Your task to perform on an android device: check the backup settings in the google photos Image 0: 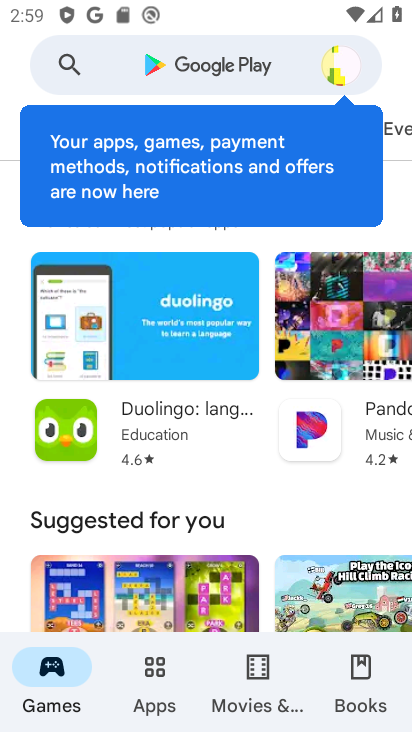
Step 0: press home button
Your task to perform on an android device: check the backup settings in the google photos Image 1: 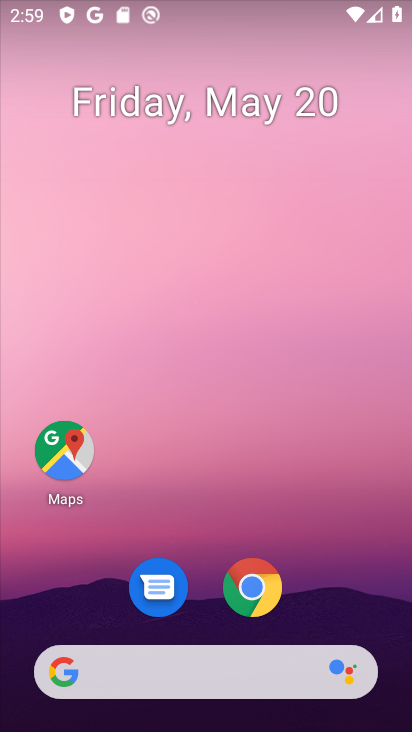
Step 1: drag from (200, 670) to (264, 243)
Your task to perform on an android device: check the backup settings in the google photos Image 2: 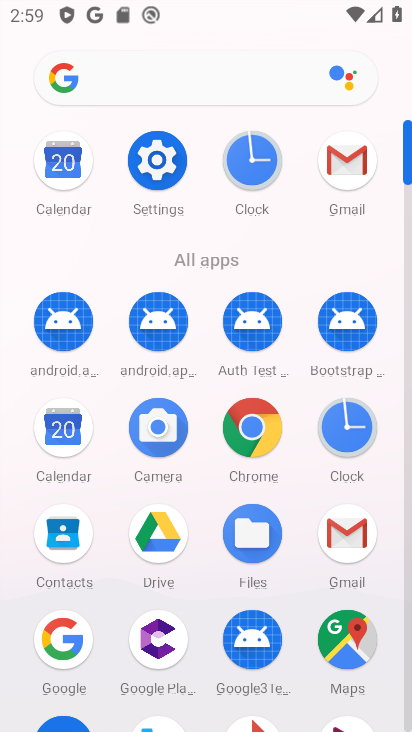
Step 2: drag from (217, 648) to (333, 155)
Your task to perform on an android device: check the backup settings in the google photos Image 3: 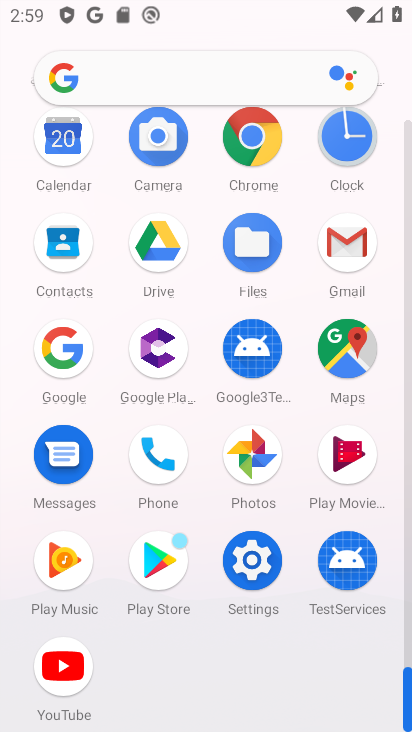
Step 3: click (248, 456)
Your task to perform on an android device: check the backup settings in the google photos Image 4: 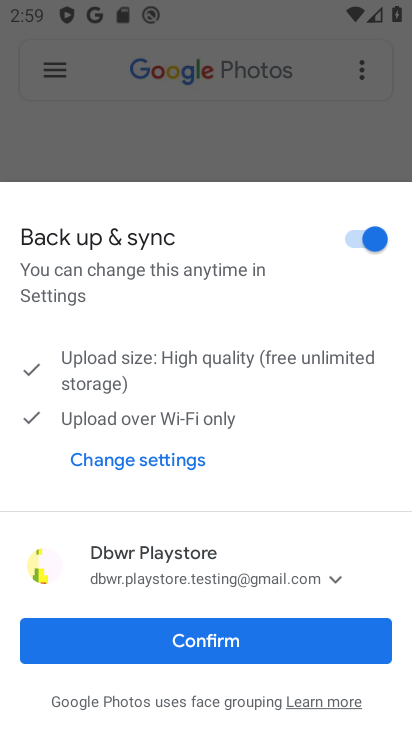
Step 4: click (193, 637)
Your task to perform on an android device: check the backup settings in the google photos Image 5: 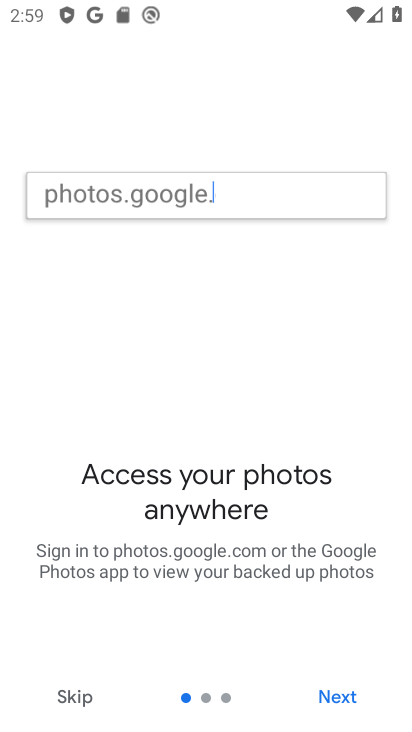
Step 5: click (335, 697)
Your task to perform on an android device: check the backup settings in the google photos Image 6: 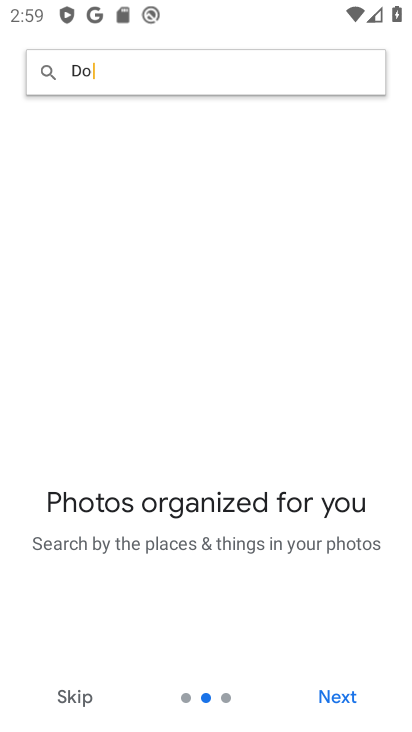
Step 6: click (335, 697)
Your task to perform on an android device: check the backup settings in the google photos Image 7: 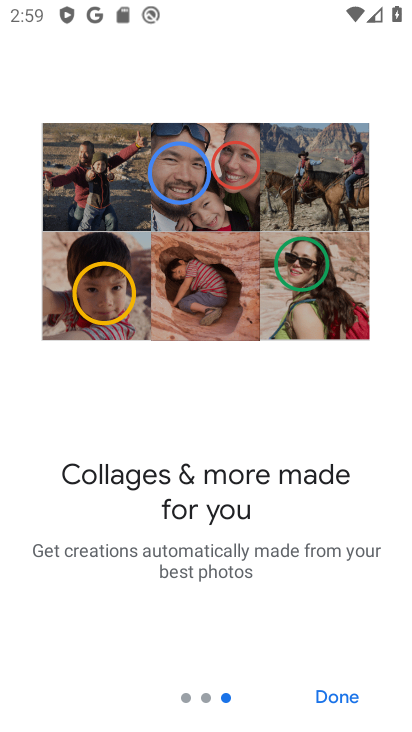
Step 7: click (334, 697)
Your task to perform on an android device: check the backup settings in the google photos Image 8: 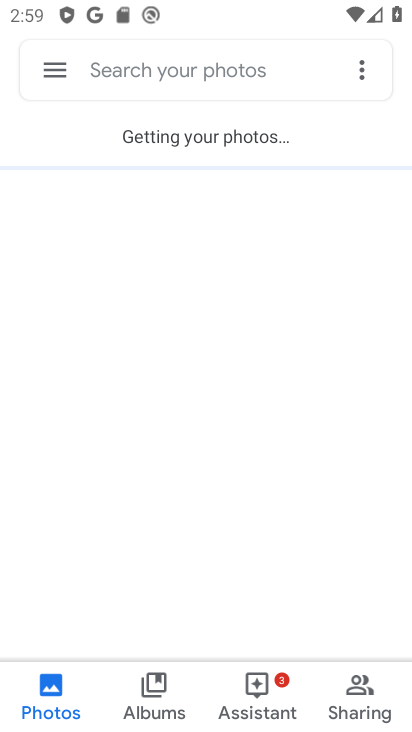
Step 8: click (53, 70)
Your task to perform on an android device: check the backup settings in the google photos Image 9: 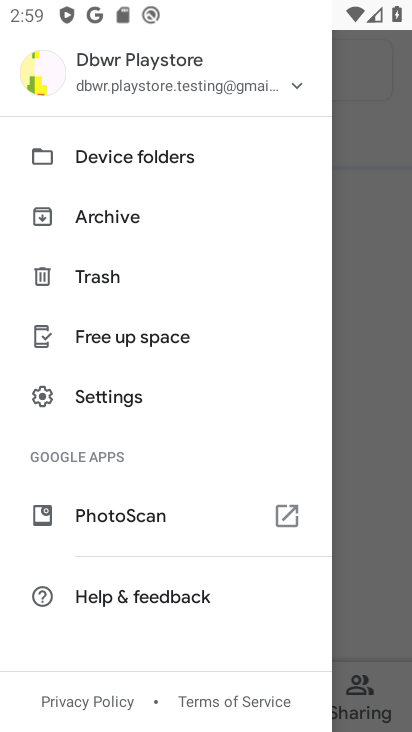
Step 9: click (133, 398)
Your task to perform on an android device: check the backup settings in the google photos Image 10: 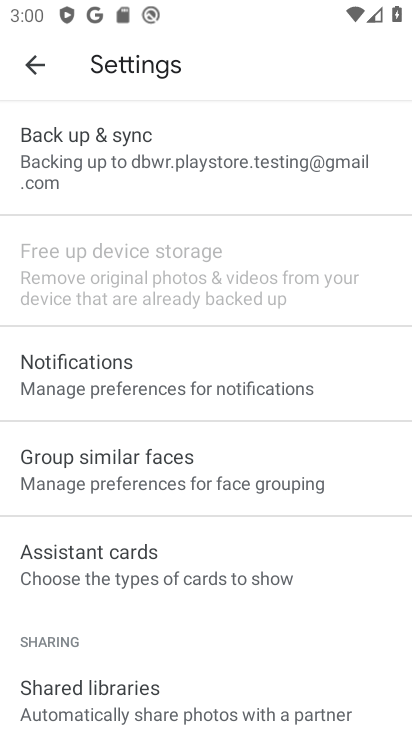
Step 10: click (164, 191)
Your task to perform on an android device: check the backup settings in the google photos Image 11: 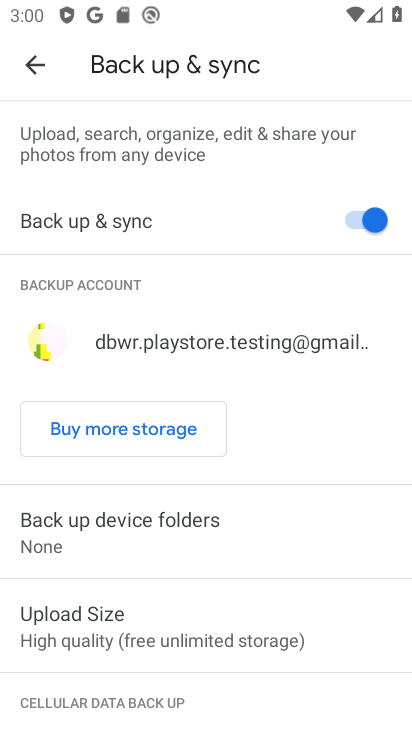
Step 11: task complete